Your task to perform on an android device: Open my contact list Image 0: 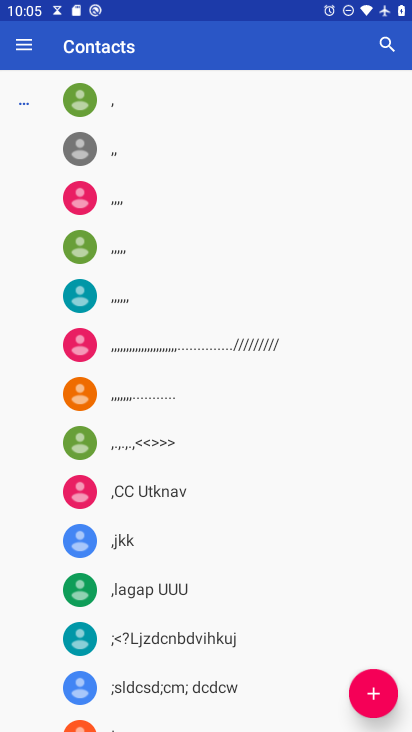
Step 0: press home button
Your task to perform on an android device: Open my contact list Image 1: 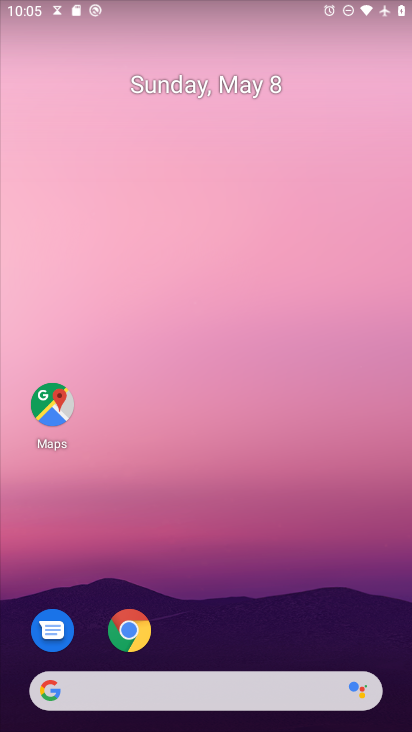
Step 1: drag from (175, 689) to (312, 52)
Your task to perform on an android device: Open my contact list Image 2: 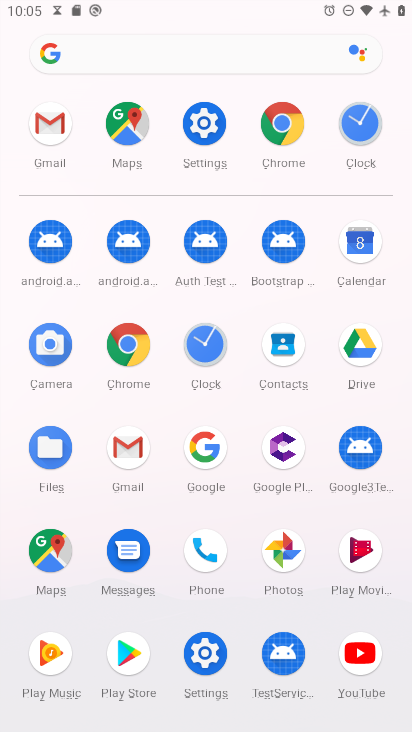
Step 2: click (284, 348)
Your task to perform on an android device: Open my contact list Image 3: 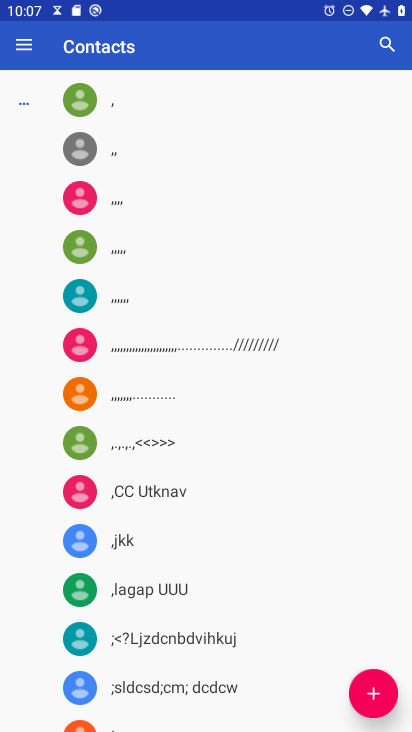
Step 3: task complete